Your task to perform on an android device: turn off translation in the chrome app Image 0: 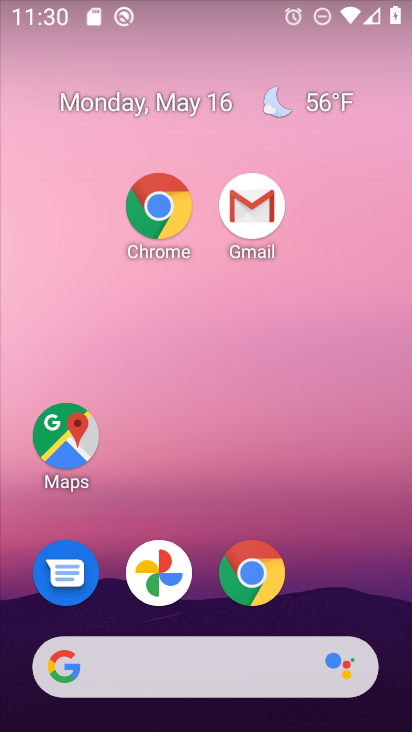
Step 0: drag from (359, 728) to (139, 109)
Your task to perform on an android device: turn off translation in the chrome app Image 1: 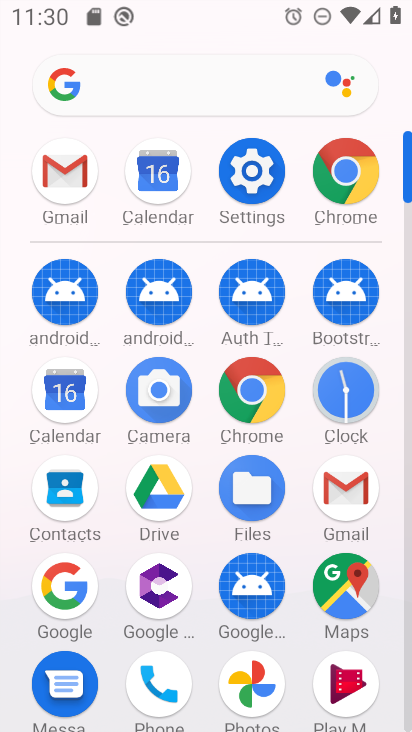
Step 1: click (333, 170)
Your task to perform on an android device: turn off translation in the chrome app Image 2: 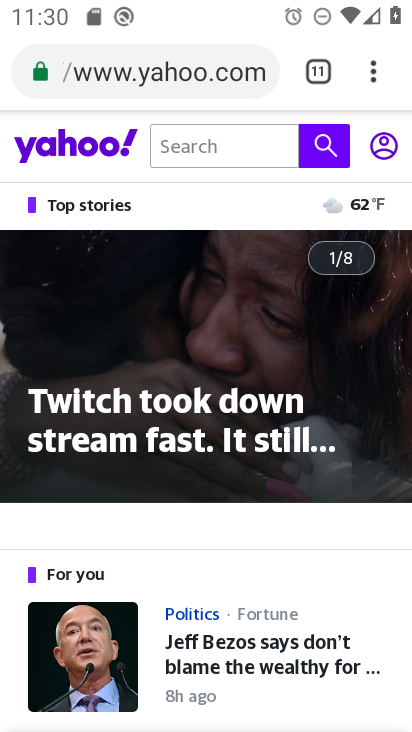
Step 2: drag from (371, 74) to (112, 536)
Your task to perform on an android device: turn off translation in the chrome app Image 3: 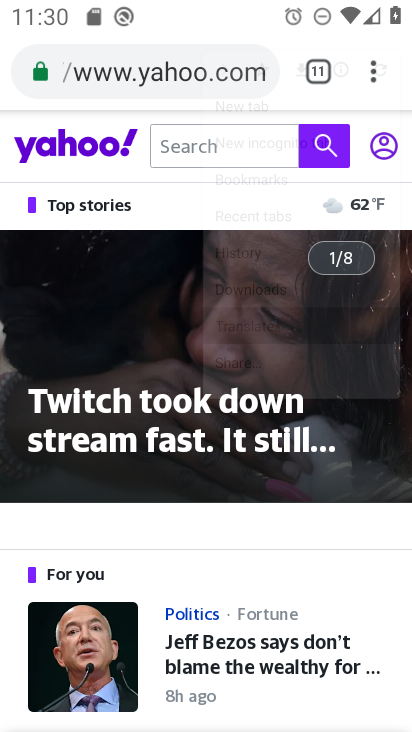
Step 3: click (112, 536)
Your task to perform on an android device: turn off translation in the chrome app Image 4: 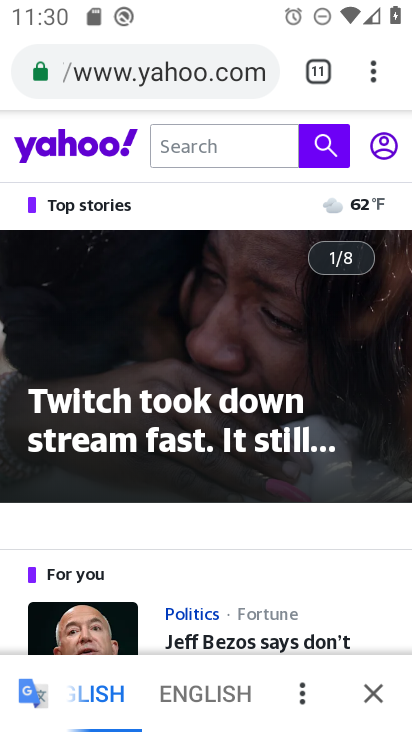
Step 4: click (369, 71)
Your task to perform on an android device: turn off translation in the chrome app Image 5: 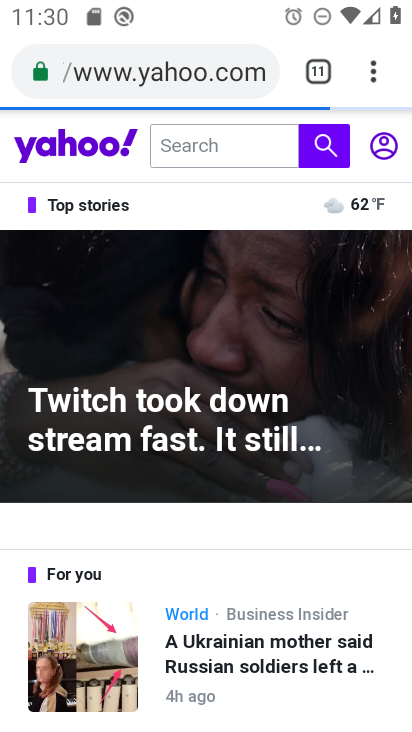
Step 5: drag from (369, 69) to (123, 570)
Your task to perform on an android device: turn off translation in the chrome app Image 6: 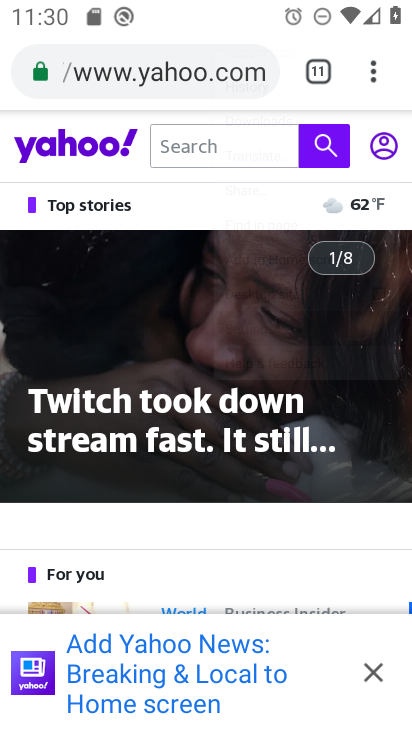
Step 6: click (121, 570)
Your task to perform on an android device: turn off translation in the chrome app Image 7: 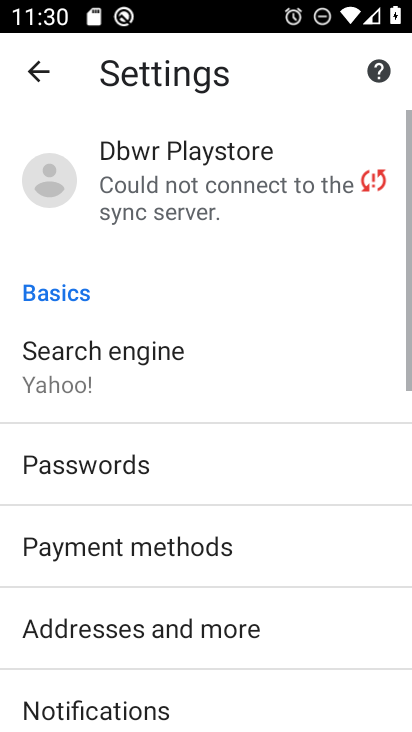
Step 7: drag from (129, 387) to (143, 259)
Your task to perform on an android device: turn off translation in the chrome app Image 8: 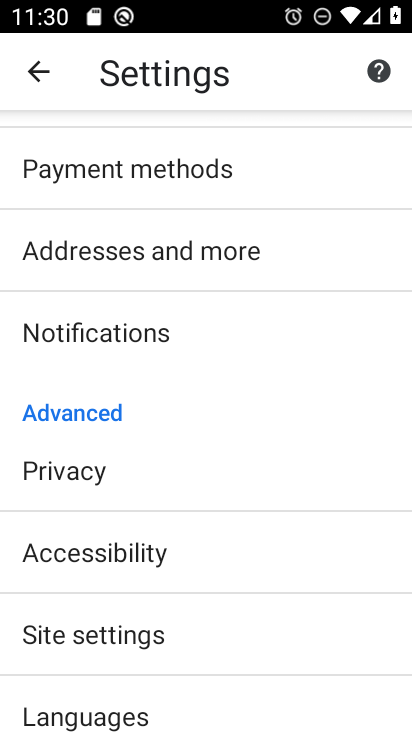
Step 8: drag from (166, 544) to (116, 89)
Your task to perform on an android device: turn off translation in the chrome app Image 9: 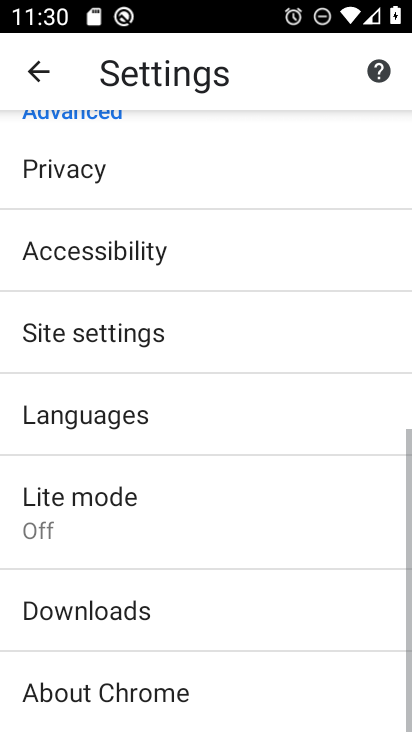
Step 9: click (65, 419)
Your task to perform on an android device: turn off translation in the chrome app Image 10: 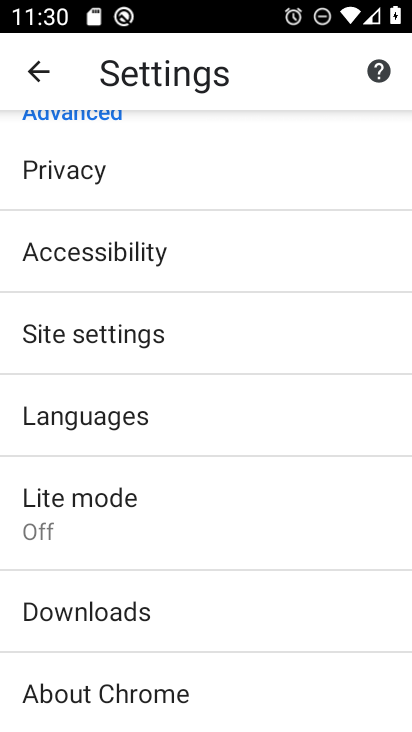
Step 10: drag from (100, 429) to (70, 118)
Your task to perform on an android device: turn off translation in the chrome app Image 11: 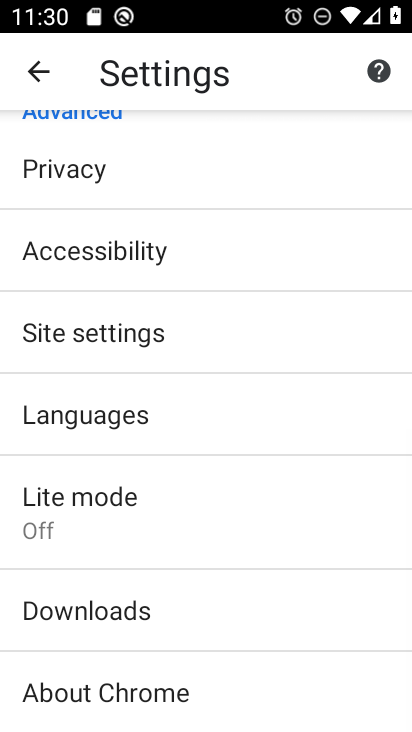
Step 11: click (66, 413)
Your task to perform on an android device: turn off translation in the chrome app Image 12: 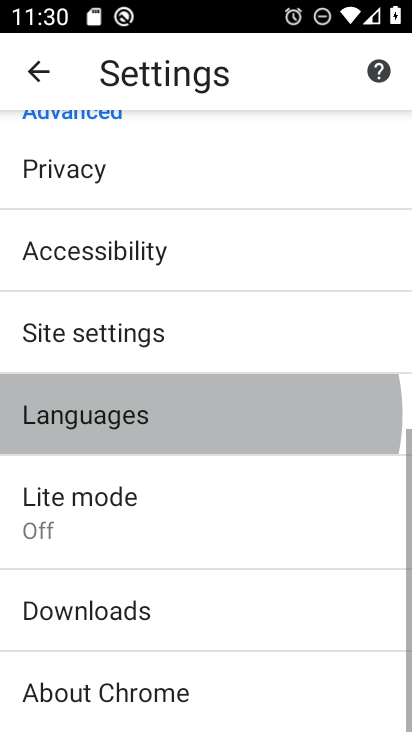
Step 12: click (67, 416)
Your task to perform on an android device: turn off translation in the chrome app Image 13: 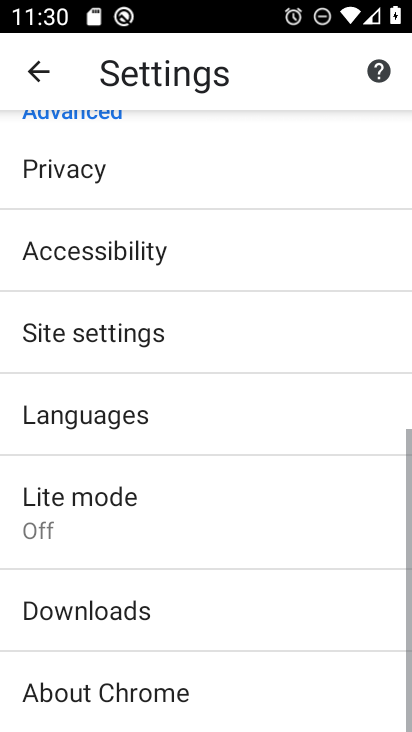
Step 13: click (68, 417)
Your task to perform on an android device: turn off translation in the chrome app Image 14: 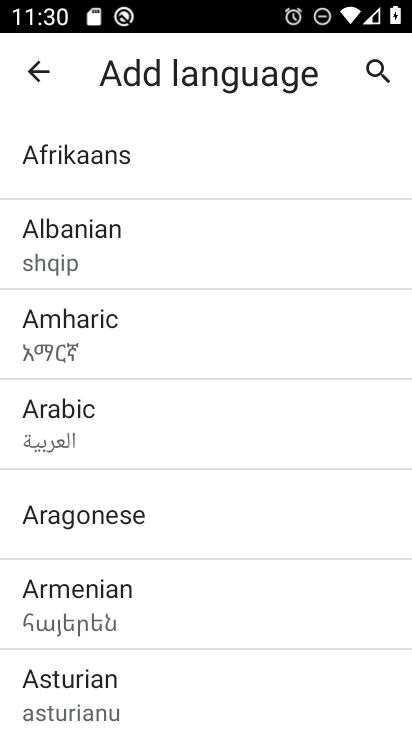
Step 14: click (35, 74)
Your task to perform on an android device: turn off translation in the chrome app Image 15: 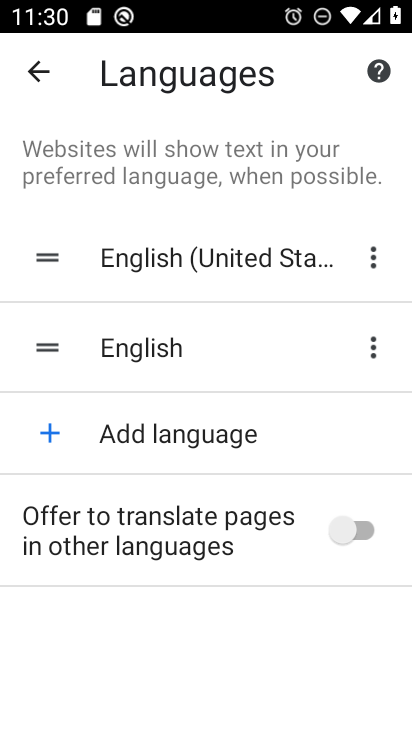
Step 15: click (334, 531)
Your task to perform on an android device: turn off translation in the chrome app Image 16: 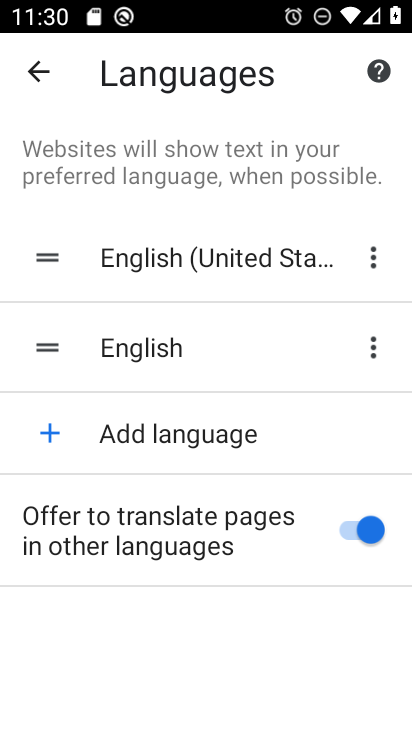
Step 16: click (366, 528)
Your task to perform on an android device: turn off translation in the chrome app Image 17: 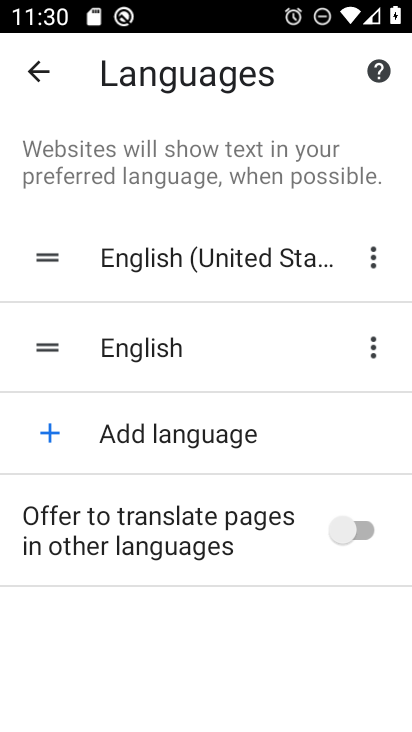
Step 17: task complete